Your task to perform on an android device: Is it going to rain tomorrow? Image 0: 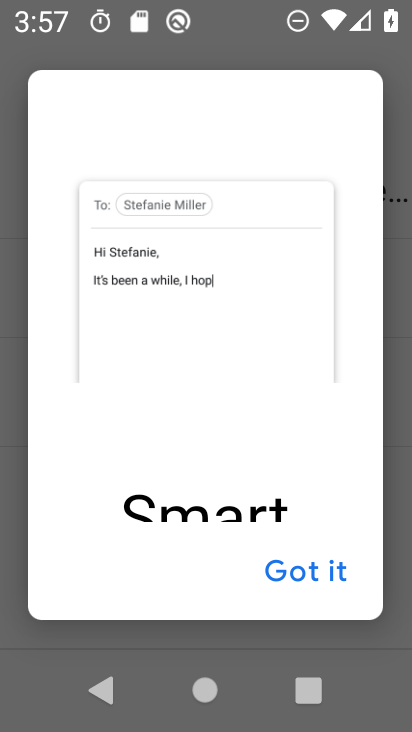
Step 0: press home button
Your task to perform on an android device: Is it going to rain tomorrow? Image 1: 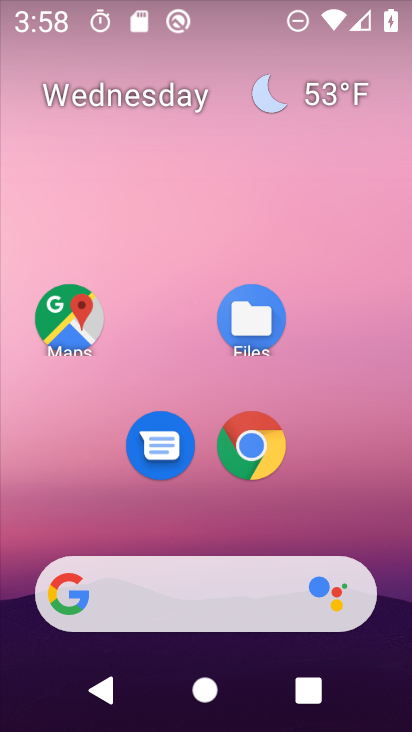
Step 1: drag from (336, 515) to (346, 165)
Your task to perform on an android device: Is it going to rain tomorrow? Image 2: 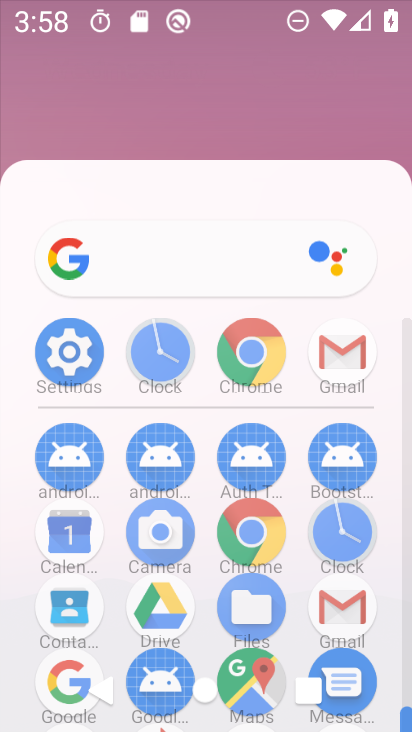
Step 2: drag from (408, 166) to (199, 449)
Your task to perform on an android device: Is it going to rain tomorrow? Image 3: 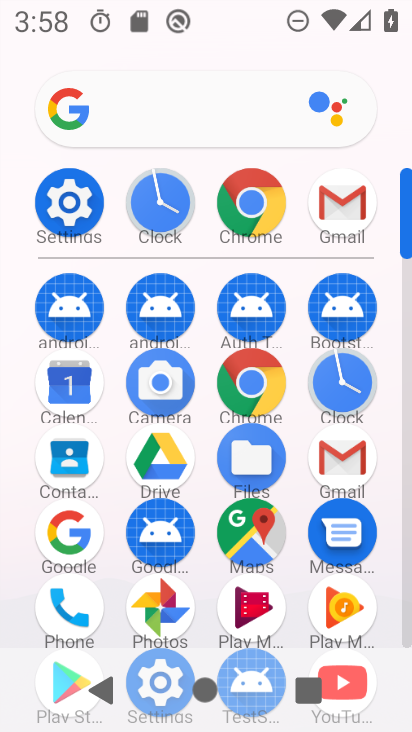
Step 3: click (64, 385)
Your task to perform on an android device: Is it going to rain tomorrow? Image 4: 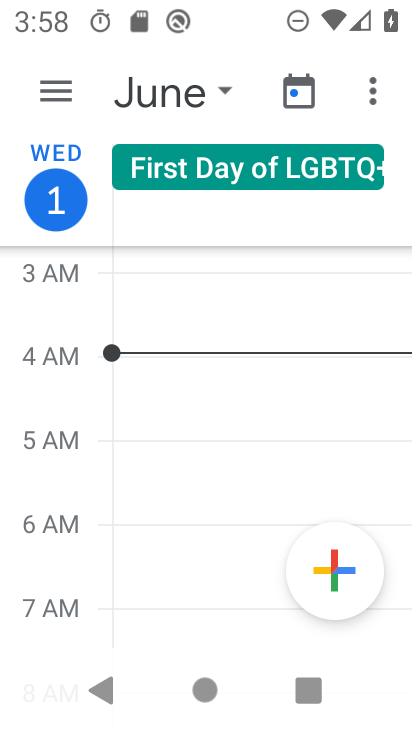
Step 4: press home button
Your task to perform on an android device: Is it going to rain tomorrow? Image 5: 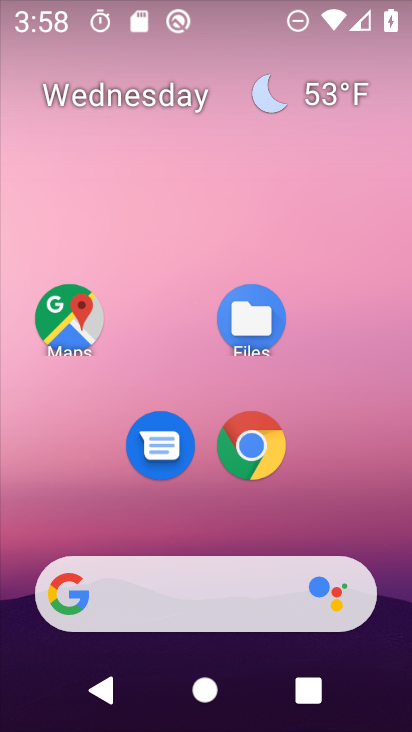
Step 5: click (227, 598)
Your task to perform on an android device: Is it going to rain tomorrow? Image 6: 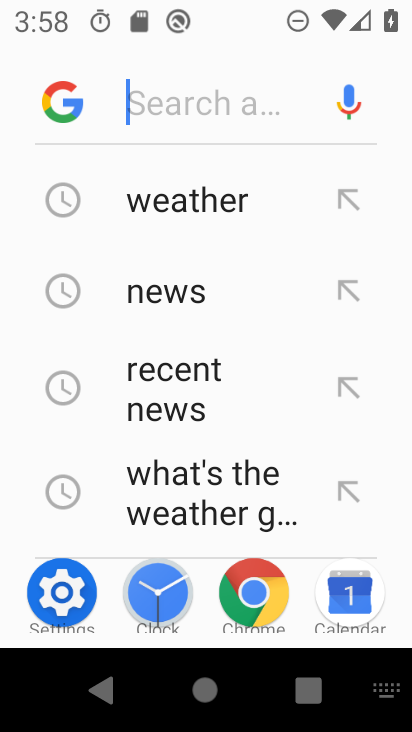
Step 6: drag from (290, 612) to (344, 730)
Your task to perform on an android device: Is it going to rain tomorrow? Image 7: 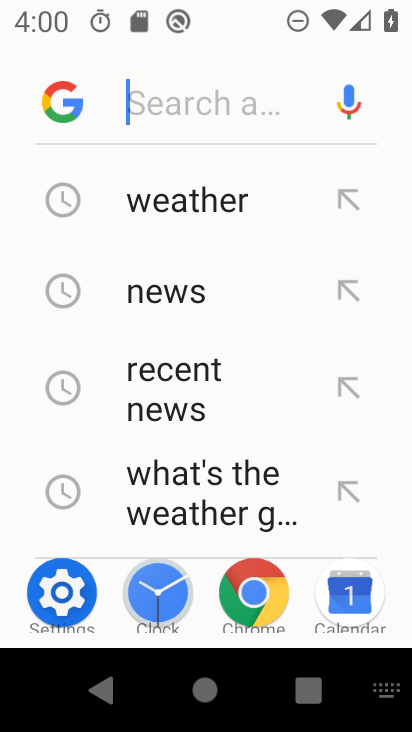
Step 7: click (317, 207)
Your task to perform on an android device: Is it going to rain tomorrow? Image 8: 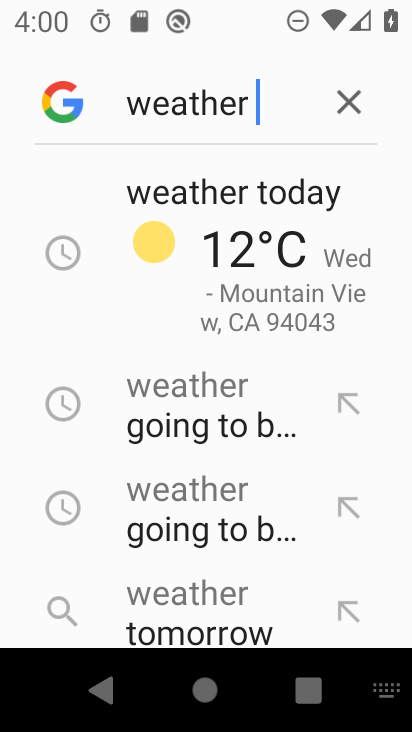
Step 8: click (233, 92)
Your task to perform on an android device: Is it going to rain tomorrow? Image 9: 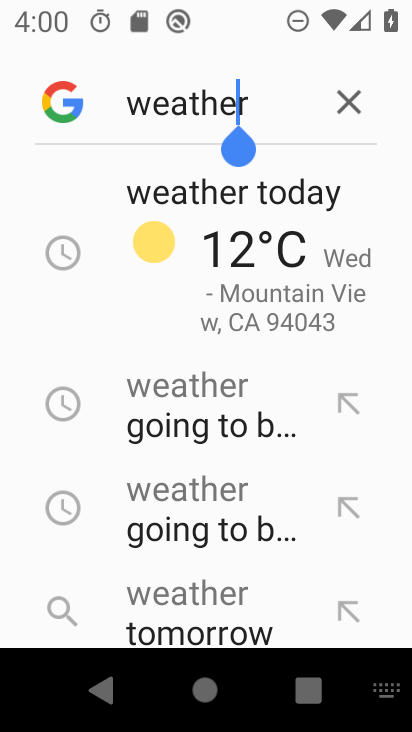
Step 9: click (342, 96)
Your task to perform on an android device: Is it going to rain tomorrow? Image 10: 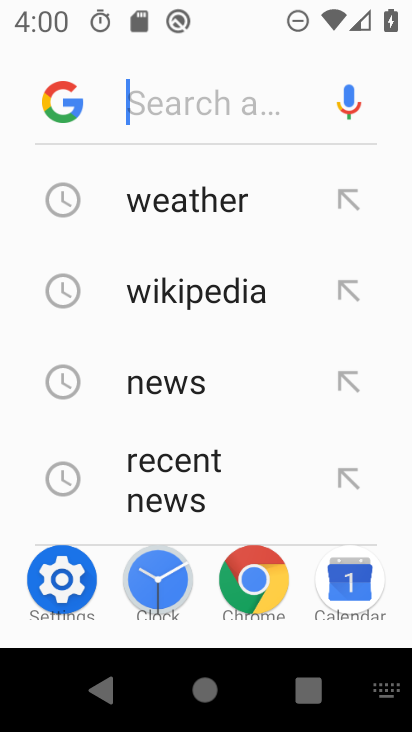
Step 10: click (197, 235)
Your task to perform on an android device: Is it going to rain tomorrow? Image 11: 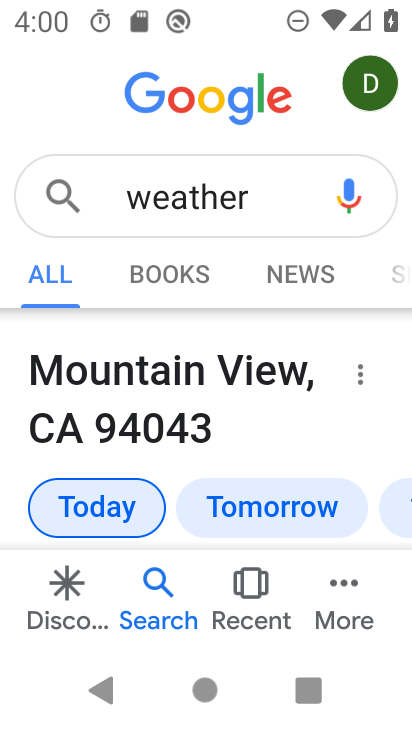
Step 11: click (262, 495)
Your task to perform on an android device: Is it going to rain tomorrow? Image 12: 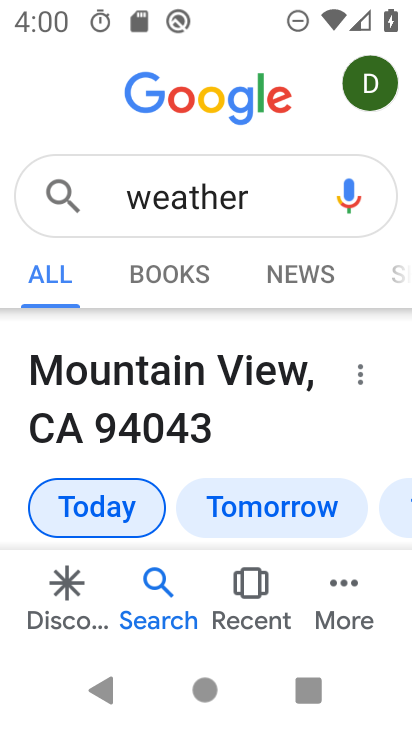
Step 12: click (262, 495)
Your task to perform on an android device: Is it going to rain tomorrow? Image 13: 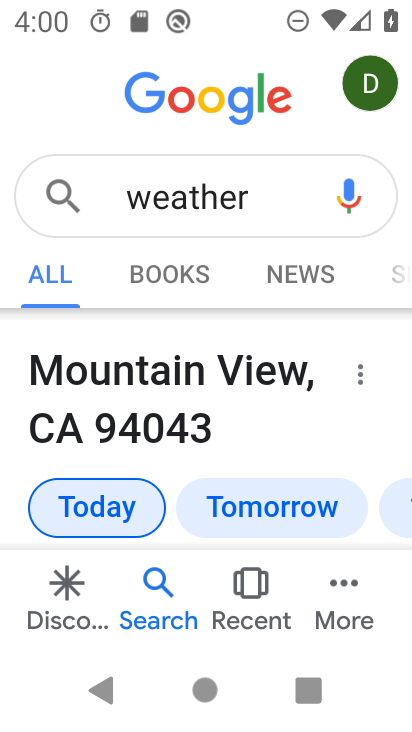
Step 13: click (266, 510)
Your task to perform on an android device: Is it going to rain tomorrow? Image 14: 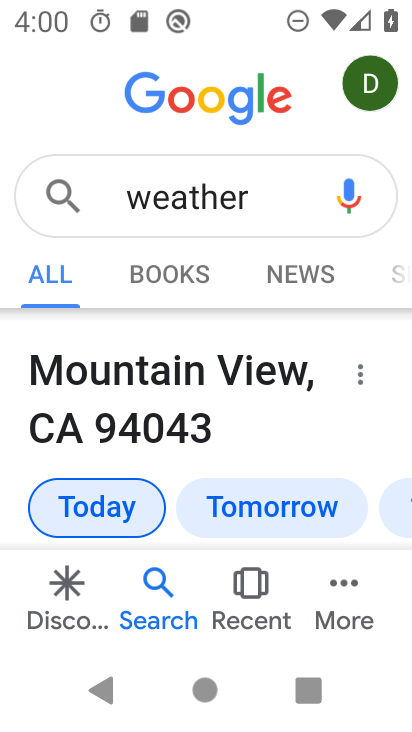
Step 14: click (266, 510)
Your task to perform on an android device: Is it going to rain tomorrow? Image 15: 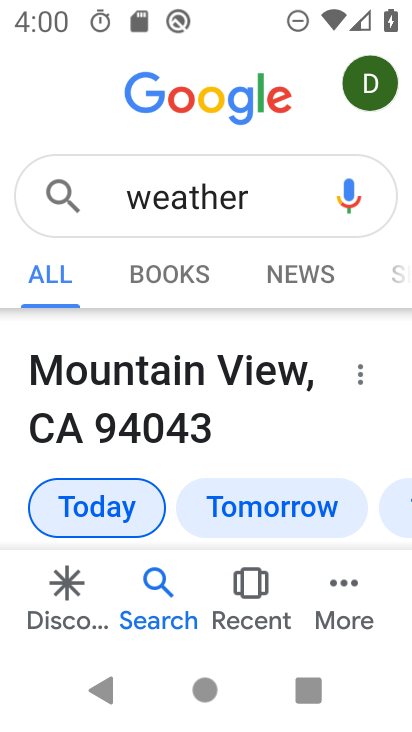
Step 15: click (265, 513)
Your task to perform on an android device: Is it going to rain tomorrow? Image 16: 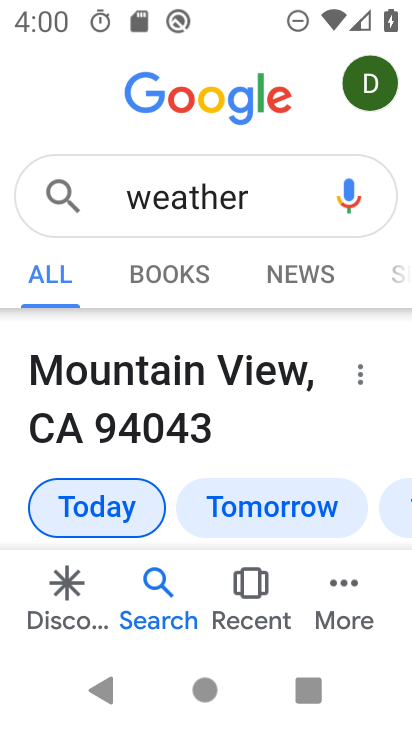
Step 16: click (264, 512)
Your task to perform on an android device: Is it going to rain tomorrow? Image 17: 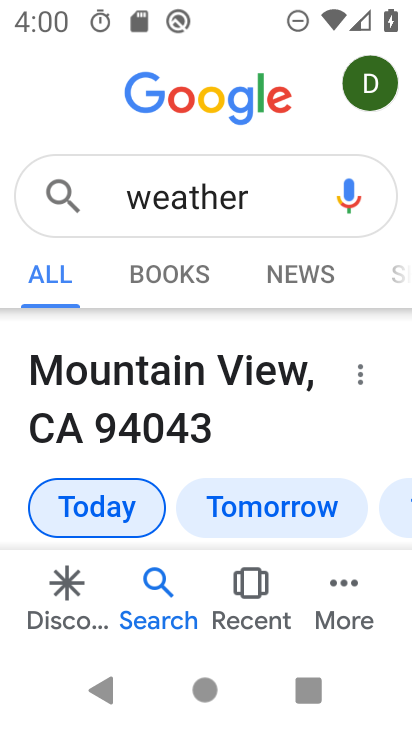
Step 17: click (263, 511)
Your task to perform on an android device: Is it going to rain tomorrow? Image 18: 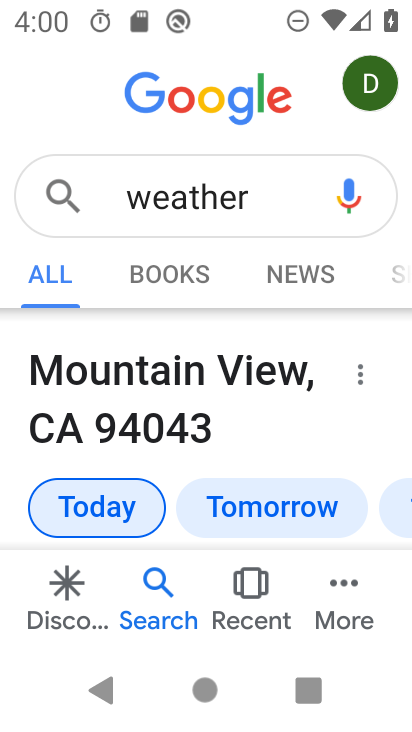
Step 18: click (280, 506)
Your task to perform on an android device: Is it going to rain tomorrow? Image 19: 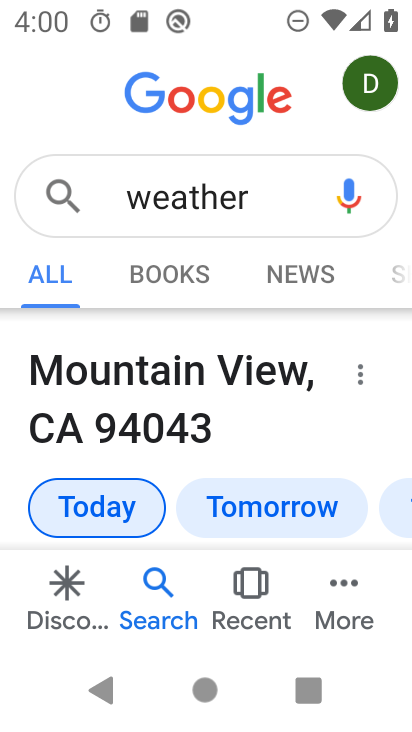
Step 19: click (280, 505)
Your task to perform on an android device: Is it going to rain tomorrow? Image 20: 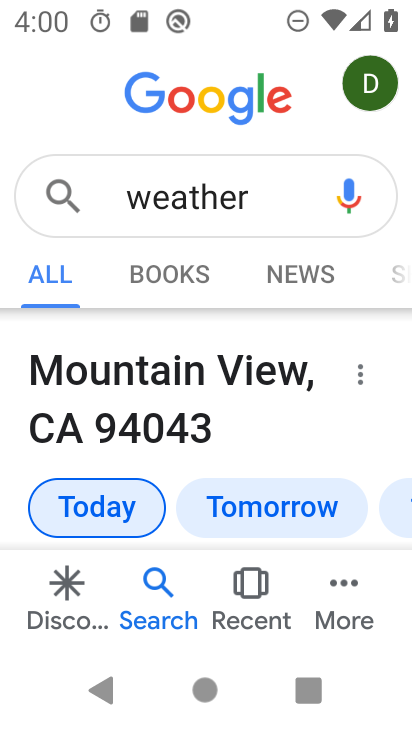
Step 20: click (280, 505)
Your task to perform on an android device: Is it going to rain tomorrow? Image 21: 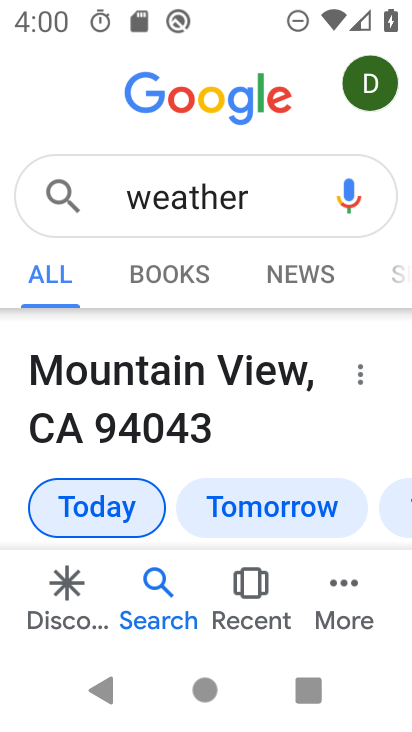
Step 21: click (280, 505)
Your task to perform on an android device: Is it going to rain tomorrow? Image 22: 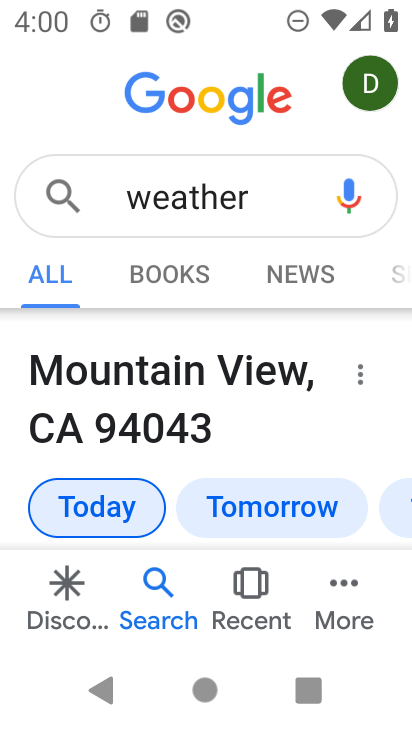
Step 22: click (261, 508)
Your task to perform on an android device: Is it going to rain tomorrow? Image 23: 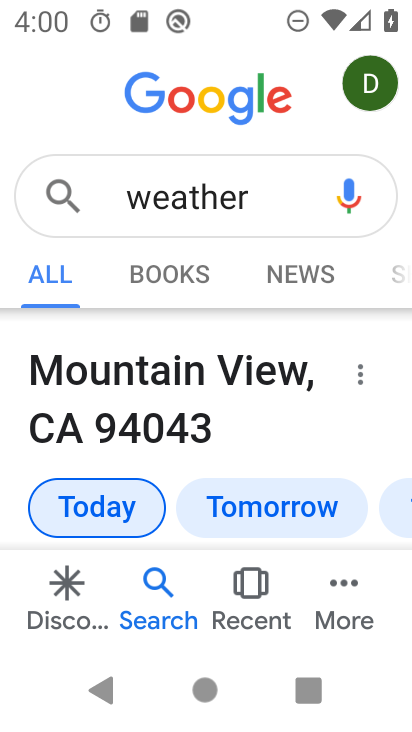
Step 23: click (262, 508)
Your task to perform on an android device: Is it going to rain tomorrow? Image 24: 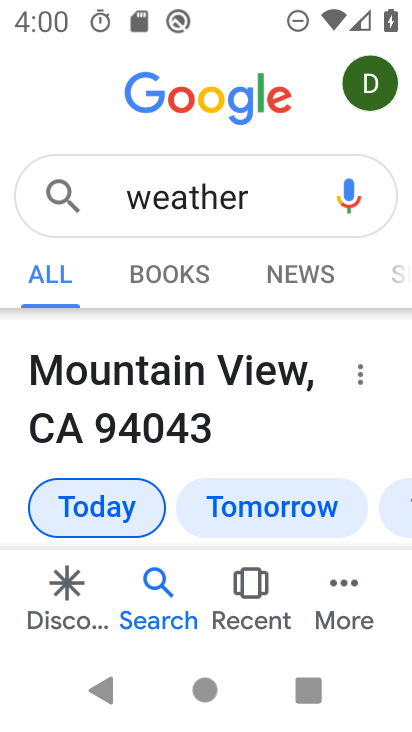
Step 24: click (324, 185)
Your task to perform on an android device: Is it going to rain tomorrow? Image 25: 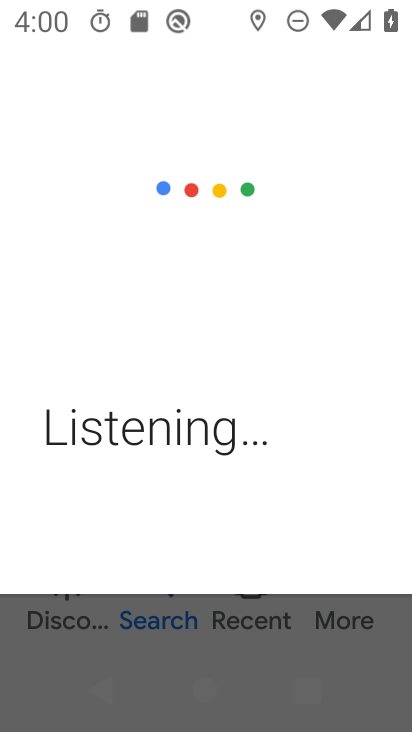
Step 25: press back button
Your task to perform on an android device: Is it going to rain tomorrow? Image 26: 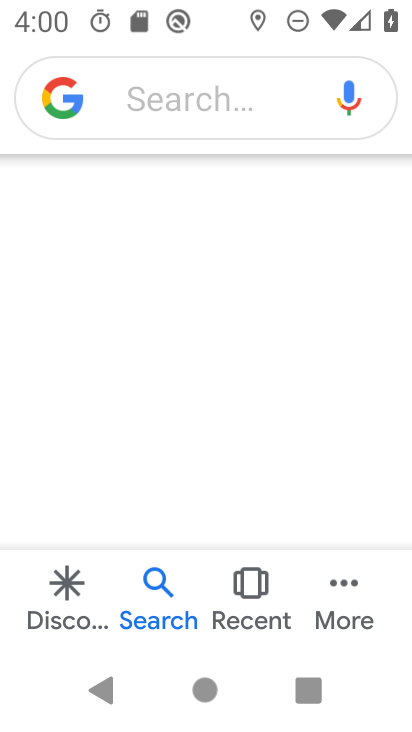
Step 26: press back button
Your task to perform on an android device: Is it going to rain tomorrow? Image 27: 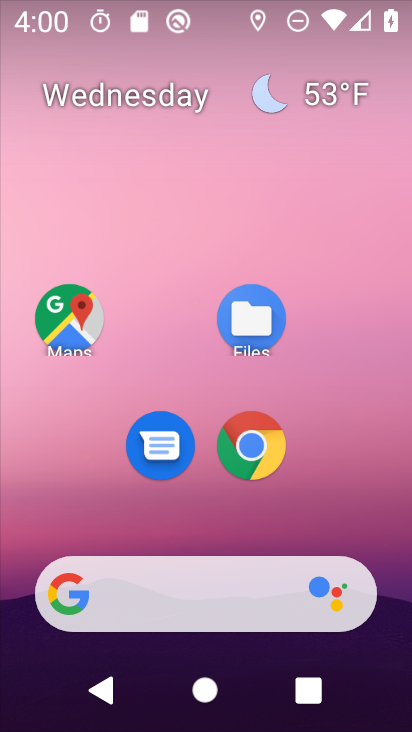
Step 27: click (166, 612)
Your task to perform on an android device: Is it going to rain tomorrow? Image 28: 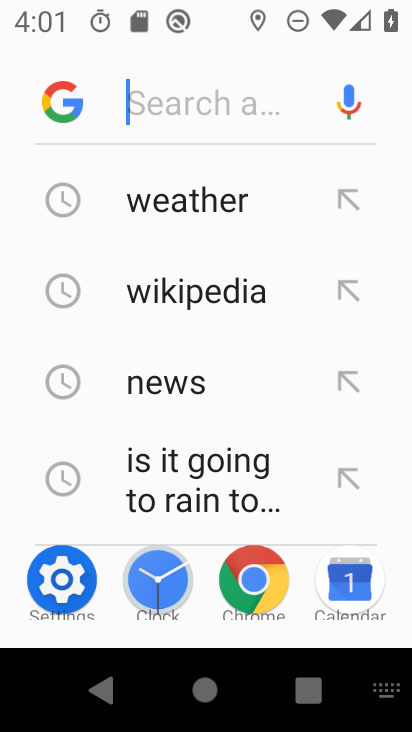
Step 28: click (194, 198)
Your task to perform on an android device: Is it going to rain tomorrow? Image 29: 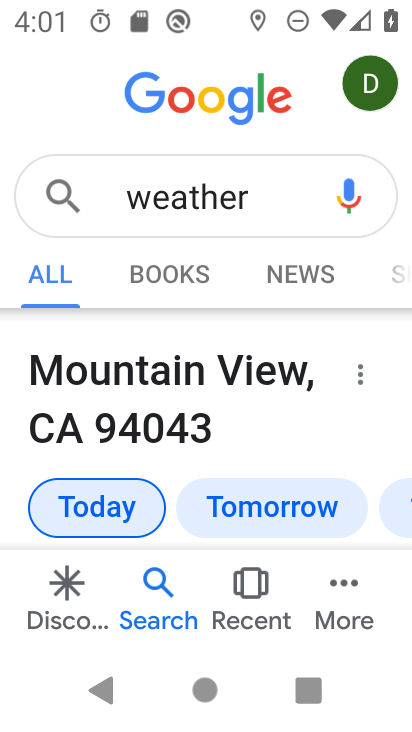
Step 29: drag from (274, 422) to (266, 99)
Your task to perform on an android device: Is it going to rain tomorrow? Image 30: 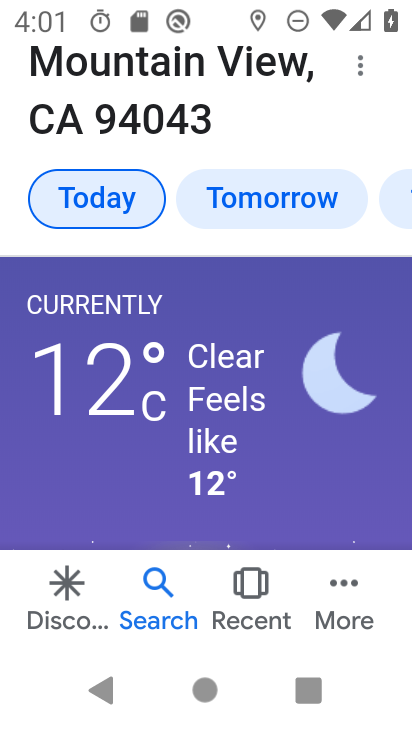
Step 30: click (281, 204)
Your task to perform on an android device: Is it going to rain tomorrow? Image 31: 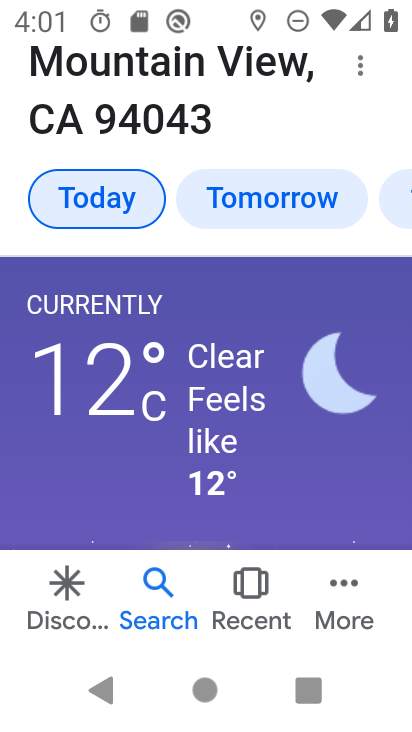
Step 31: click (281, 195)
Your task to perform on an android device: Is it going to rain tomorrow? Image 32: 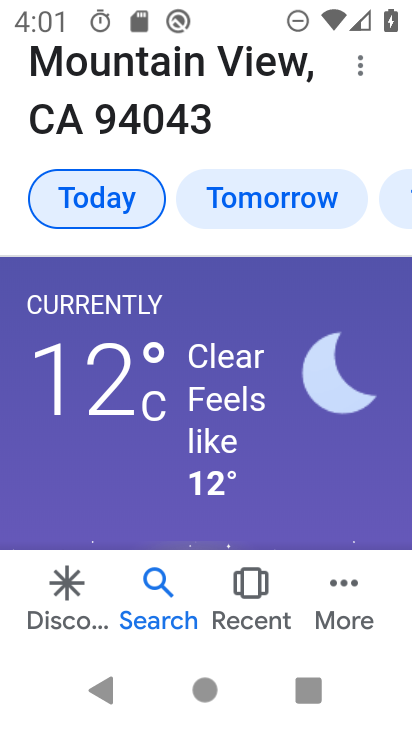
Step 32: click (281, 194)
Your task to perform on an android device: Is it going to rain tomorrow? Image 33: 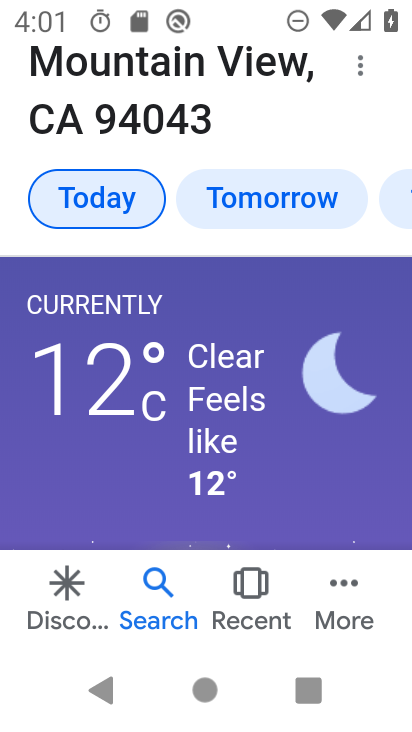
Step 33: click (281, 193)
Your task to perform on an android device: Is it going to rain tomorrow? Image 34: 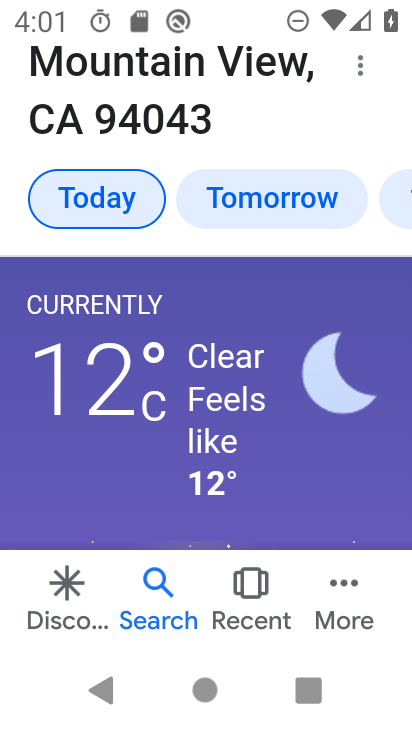
Step 34: click (281, 193)
Your task to perform on an android device: Is it going to rain tomorrow? Image 35: 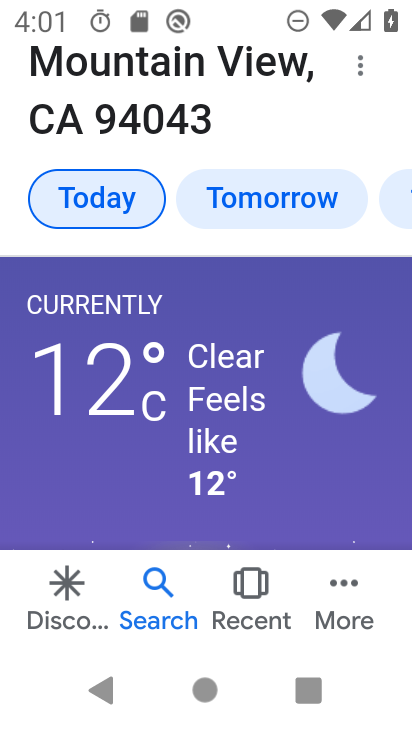
Step 35: click (281, 193)
Your task to perform on an android device: Is it going to rain tomorrow? Image 36: 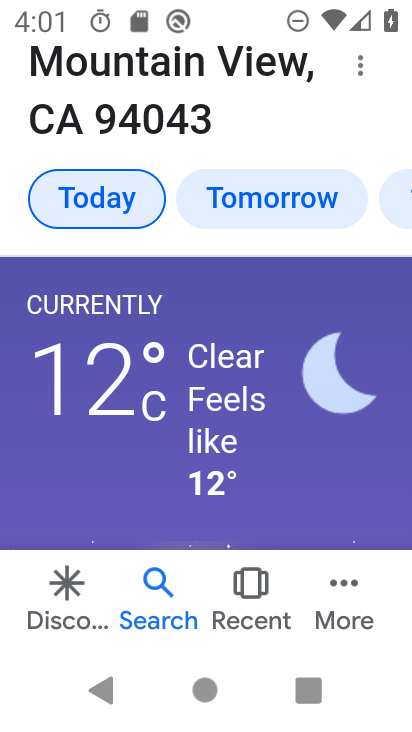
Step 36: click (281, 193)
Your task to perform on an android device: Is it going to rain tomorrow? Image 37: 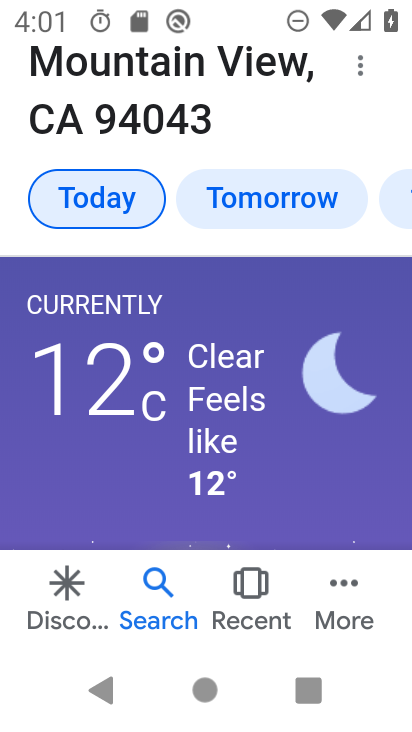
Step 37: task complete